Your task to perform on an android device: turn on priority inbox in the gmail app Image 0: 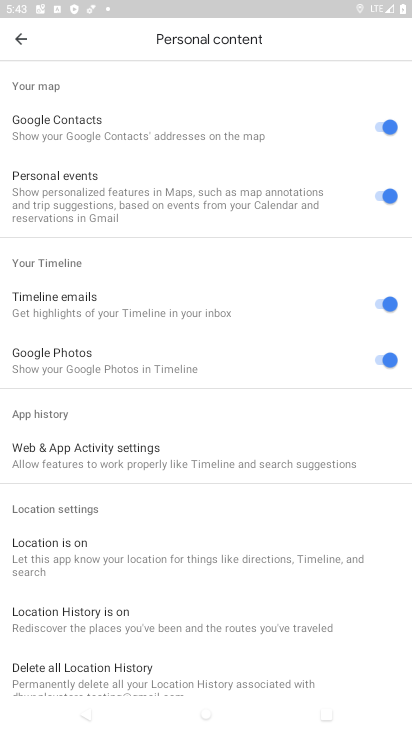
Step 0: press home button
Your task to perform on an android device: turn on priority inbox in the gmail app Image 1: 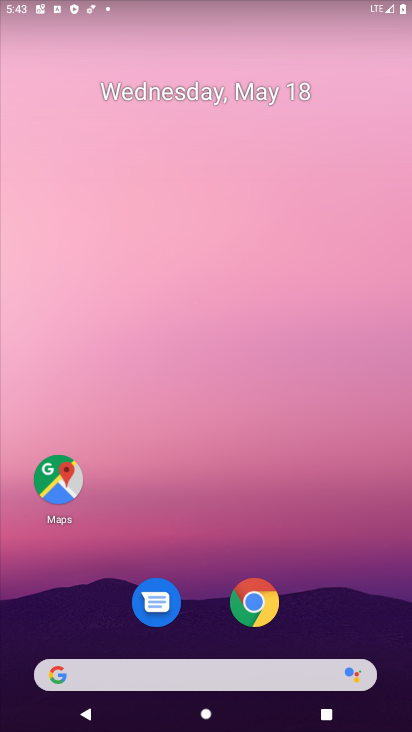
Step 1: drag from (272, 653) to (242, 0)
Your task to perform on an android device: turn on priority inbox in the gmail app Image 2: 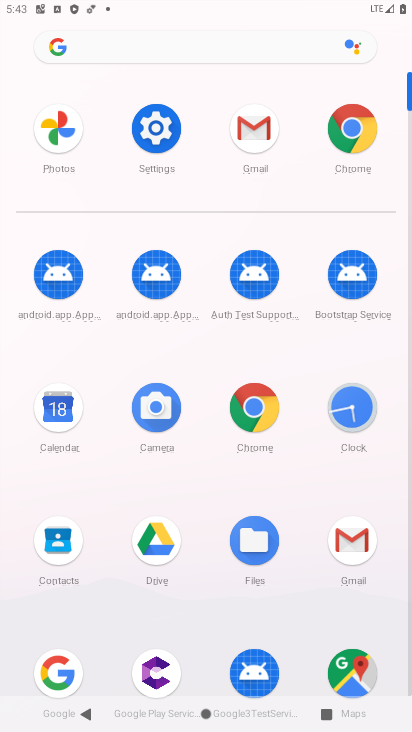
Step 2: click (342, 538)
Your task to perform on an android device: turn on priority inbox in the gmail app Image 3: 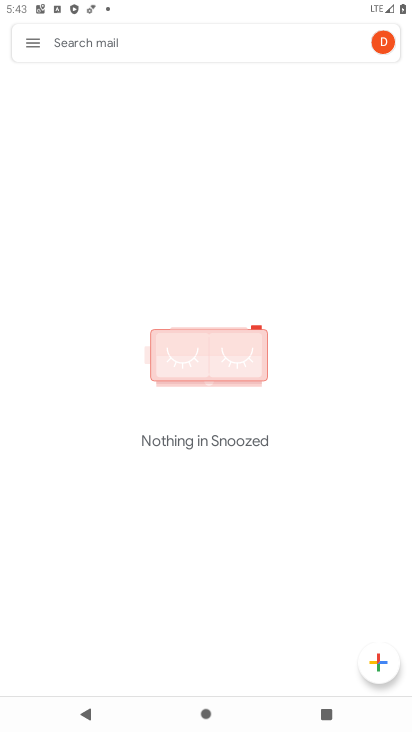
Step 3: click (31, 33)
Your task to perform on an android device: turn on priority inbox in the gmail app Image 4: 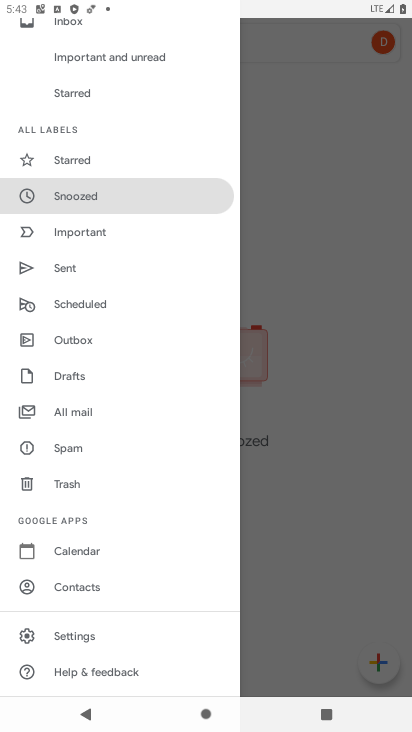
Step 4: click (92, 636)
Your task to perform on an android device: turn on priority inbox in the gmail app Image 5: 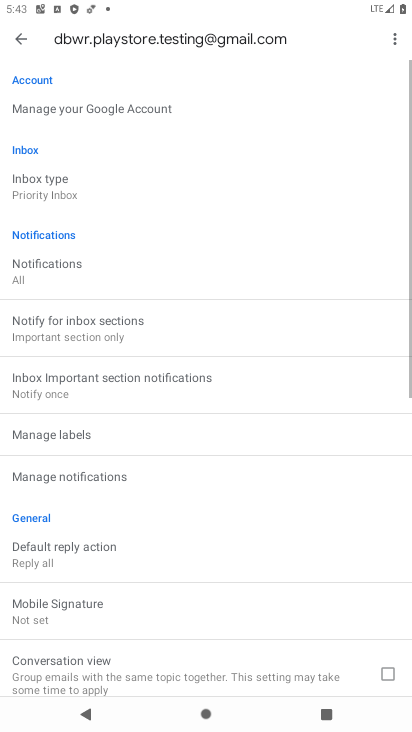
Step 5: click (54, 178)
Your task to perform on an android device: turn on priority inbox in the gmail app Image 6: 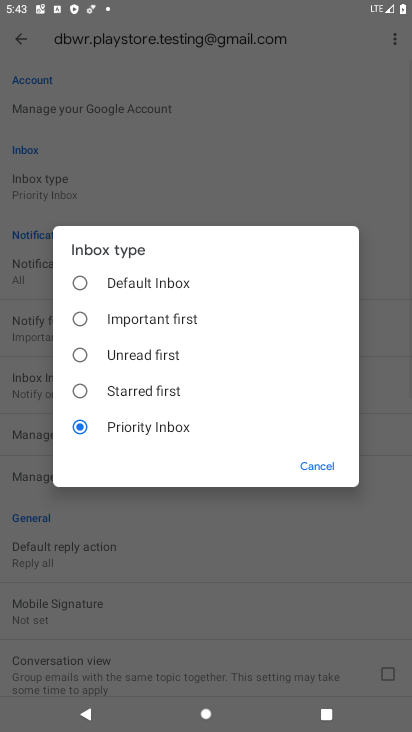
Step 6: click (139, 422)
Your task to perform on an android device: turn on priority inbox in the gmail app Image 7: 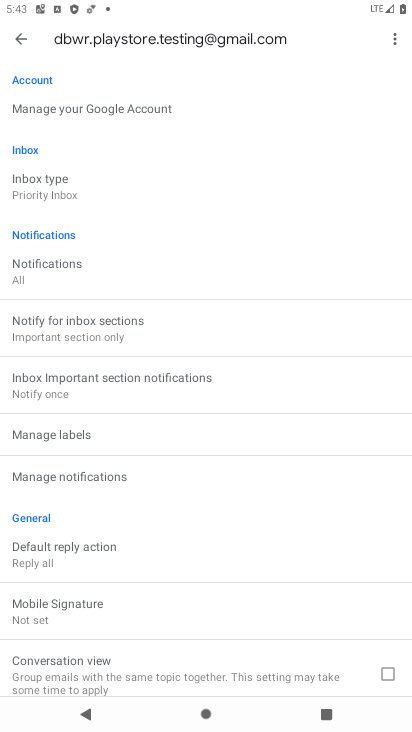
Step 7: task complete